Your task to perform on an android device: open wifi settings Image 0: 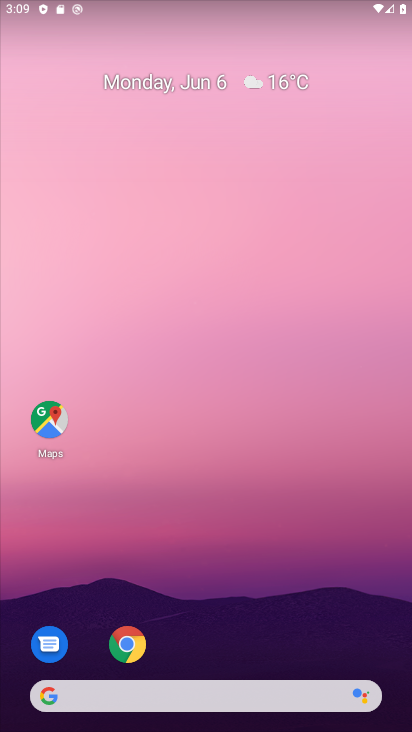
Step 0: drag from (232, 652) to (272, 318)
Your task to perform on an android device: open wifi settings Image 1: 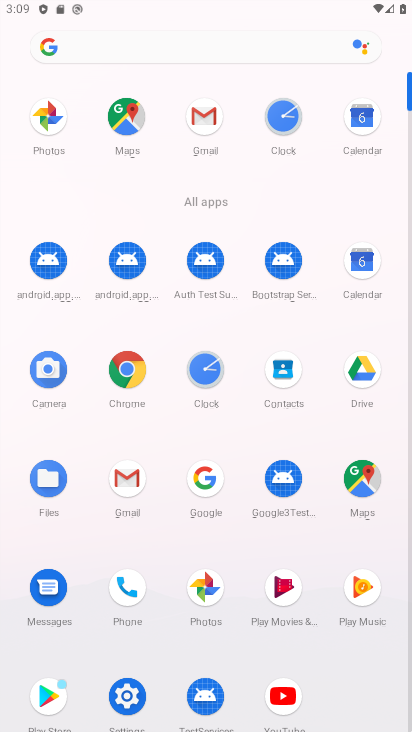
Step 1: click (126, 683)
Your task to perform on an android device: open wifi settings Image 2: 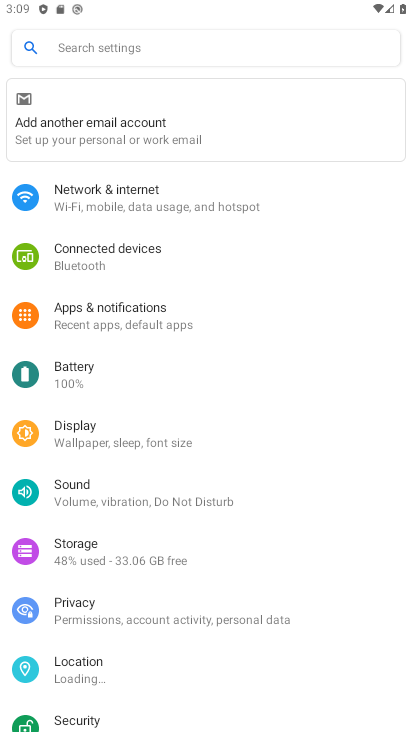
Step 2: click (128, 199)
Your task to perform on an android device: open wifi settings Image 3: 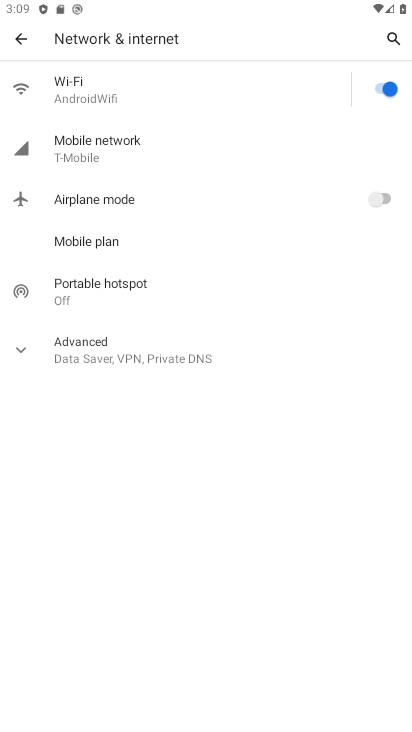
Step 3: click (127, 98)
Your task to perform on an android device: open wifi settings Image 4: 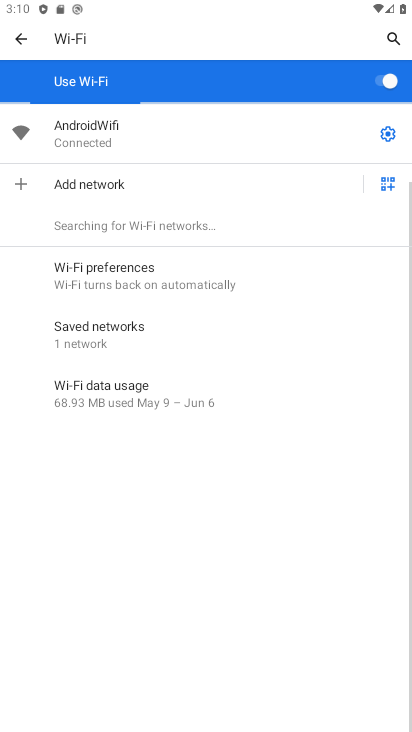
Step 4: task complete